Your task to perform on an android device: turn on the 12-hour format for clock Image 0: 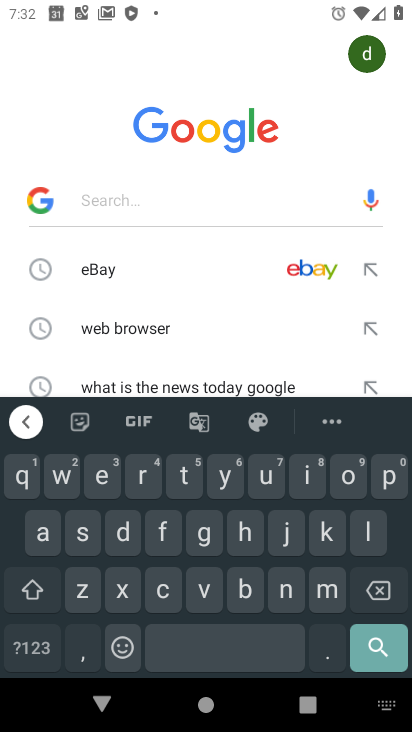
Step 0: press home button
Your task to perform on an android device: turn on the 12-hour format for clock Image 1: 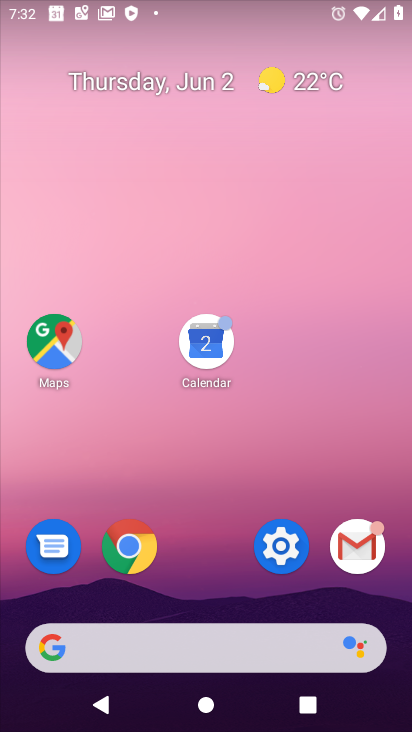
Step 1: drag from (267, 688) to (293, 42)
Your task to perform on an android device: turn on the 12-hour format for clock Image 2: 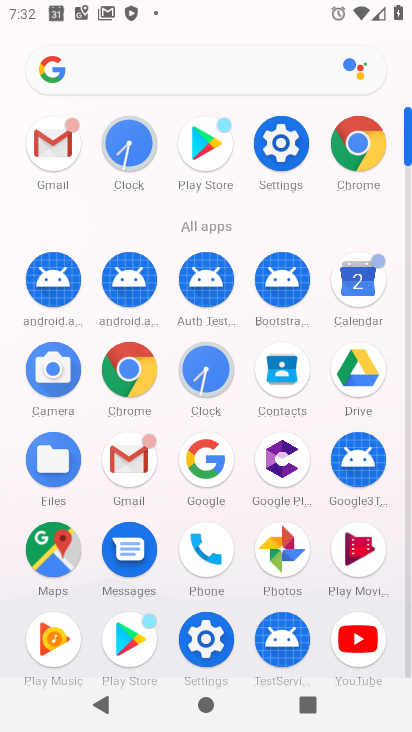
Step 2: click (125, 151)
Your task to perform on an android device: turn on the 12-hour format for clock Image 3: 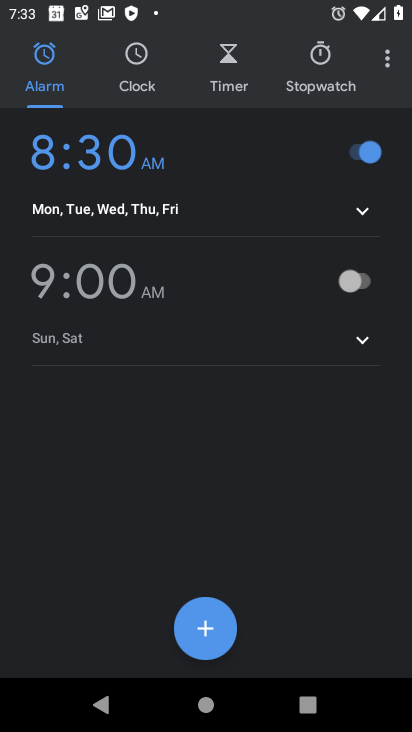
Step 3: click (385, 67)
Your task to perform on an android device: turn on the 12-hour format for clock Image 4: 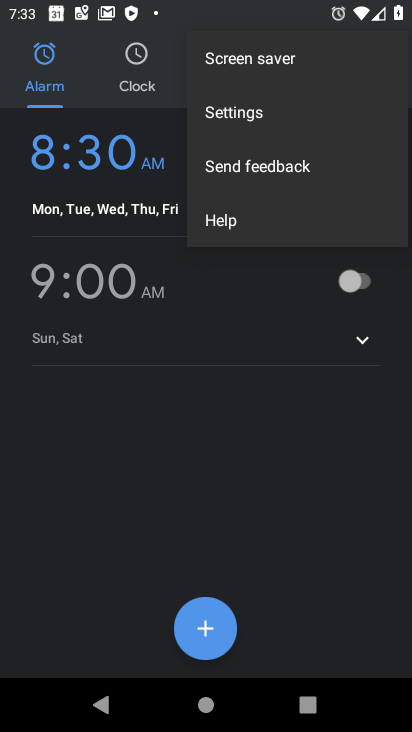
Step 4: click (246, 113)
Your task to perform on an android device: turn on the 12-hour format for clock Image 5: 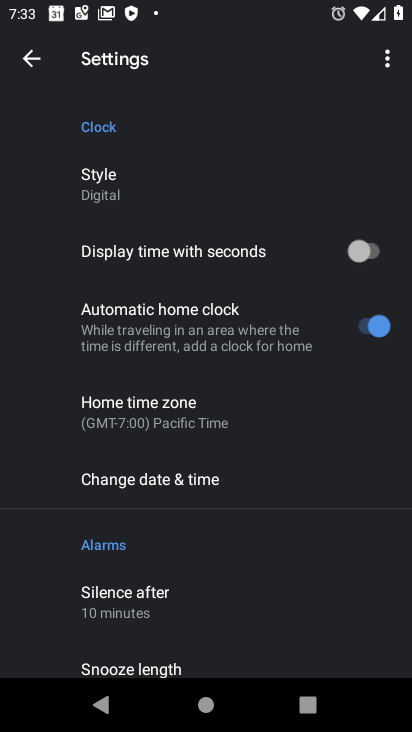
Step 5: drag from (222, 521) to (228, 393)
Your task to perform on an android device: turn on the 12-hour format for clock Image 6: 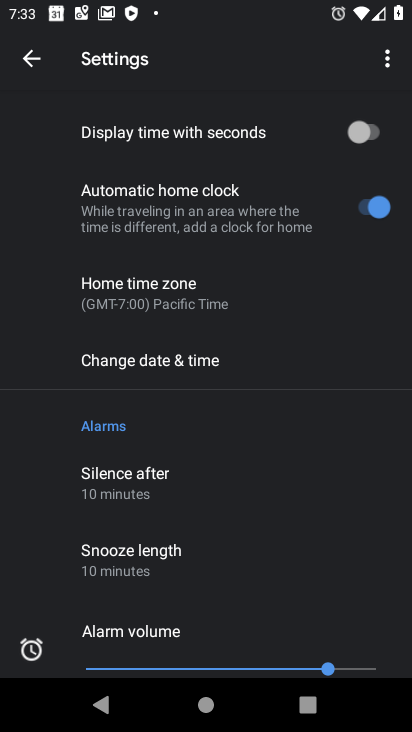
Step 6: click (199, 362)
Your task to perform on an android device: turn on the 12-hour format for clock Image 7: 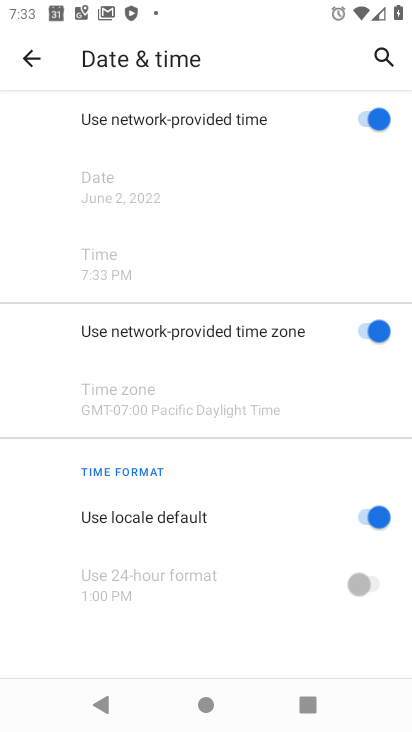
Step 7: click (377, 518)
Your task to perform on an android device: turn on the 12-hour format for clock Image 8: 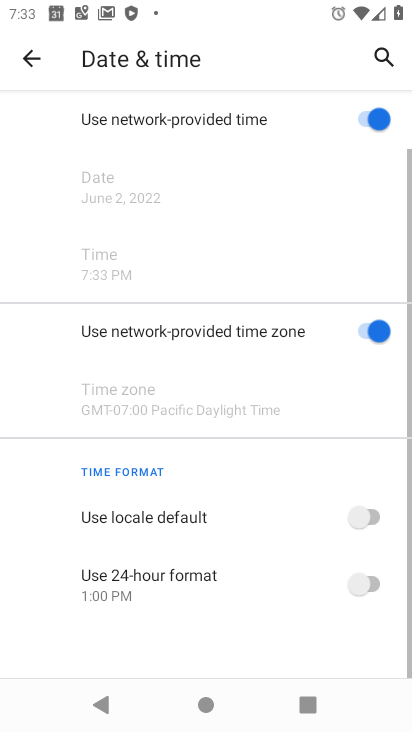
Step 8: click (372, 576)
Your task to perform on an android device: turn on the 12-hour format for clock Image 9: 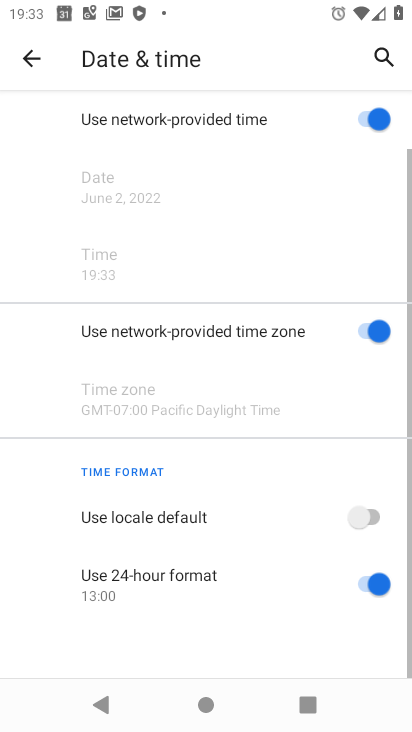
Step 9: click (372, 576)
Your task to perform on an android device: turn on the 12-hour format for clock Image 10: 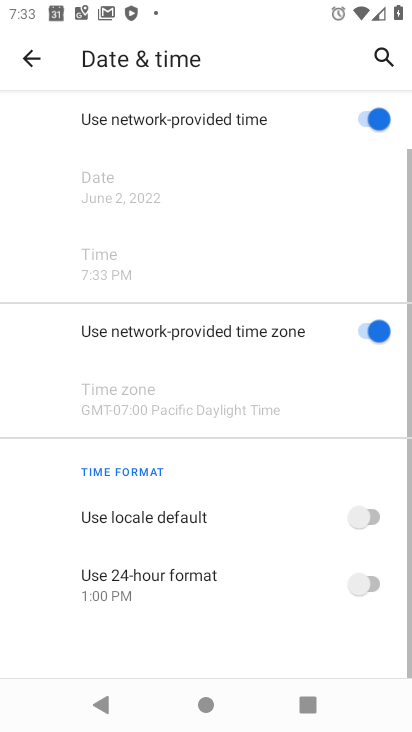
Step 10: task complete